Your task to perform on an android device: Find coffee shops on Maps Image 0: 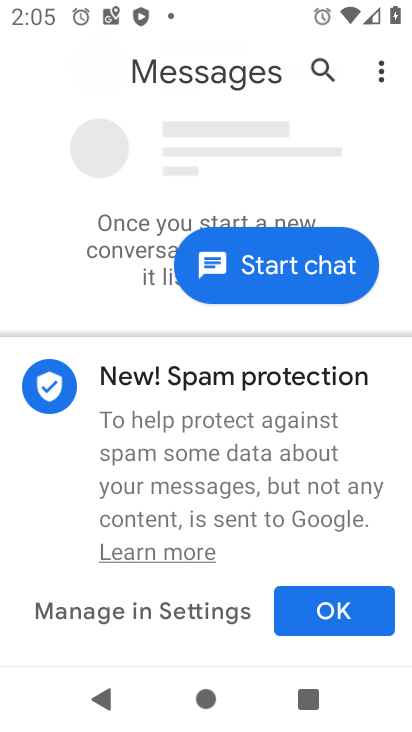
Step 0: press home button
Your task to perform on an android device: Find coffee shops on Maps Image 1: 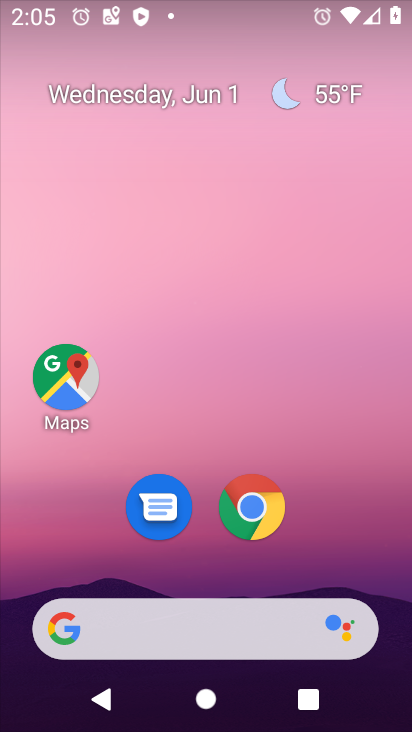
Step 1: click (64, 378)
Your task to perform on an android device: Find coffee shops on Maps Image 2: 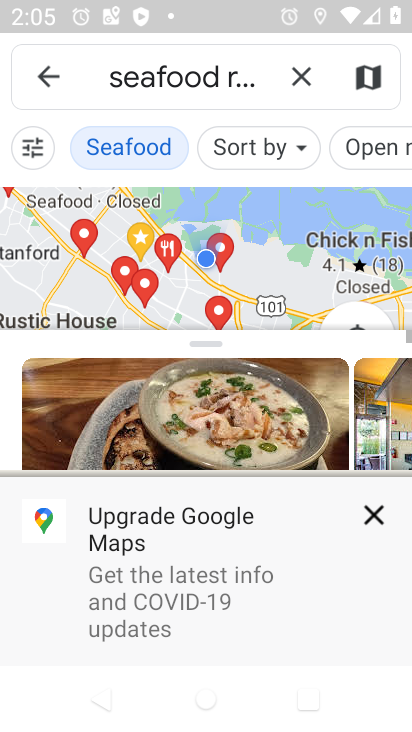
Step 2: click (301, 77)
Your task to perform on an android device: Find coffee shops on Maps Image 3: 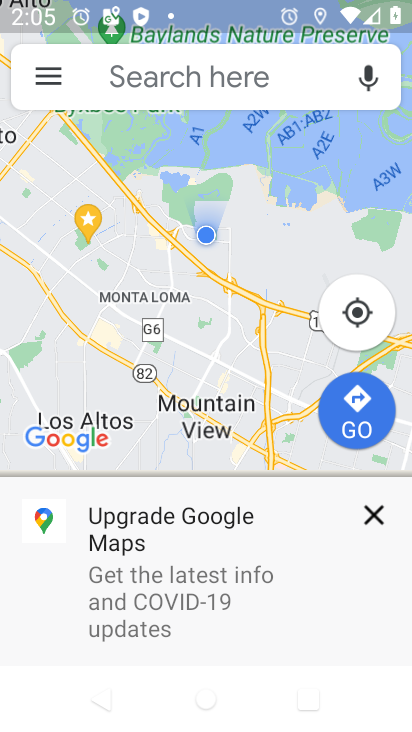
Step 3: click (113, 79)
Your task to perform on an android device: Find coffee shops on Maps Image 4: 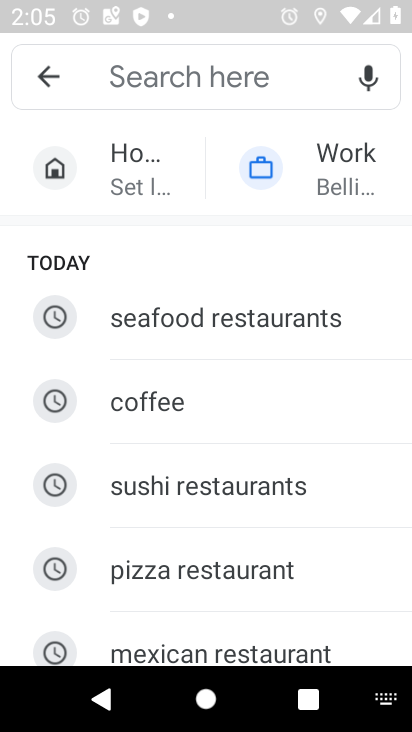
Step 4: type "coffee shops"
Your task to perform on an android device: Find coffee shops on Maps Image 5: 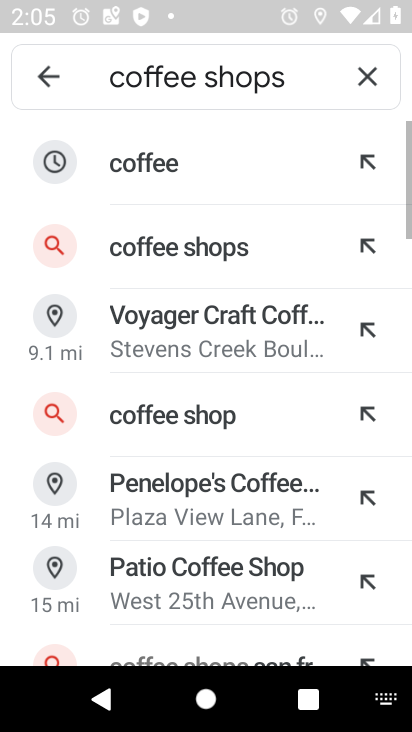
Step 5: click (168, 249)
Your task to perform on an android device: Find coffee shops on Maps Image 6: 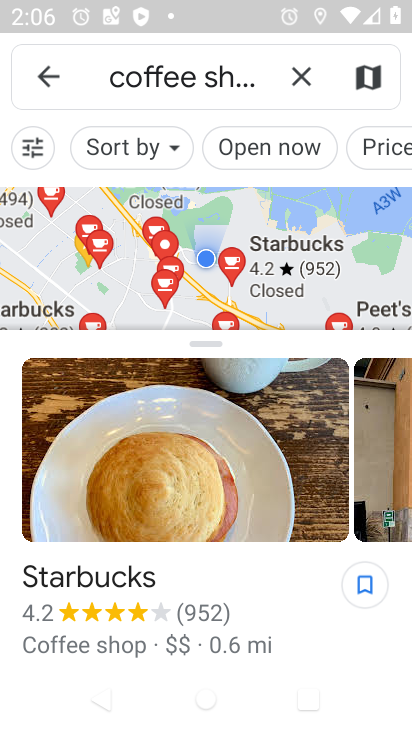
Step 6: task complete